Your task to perform on an android device: all mails in gmail Image 0: 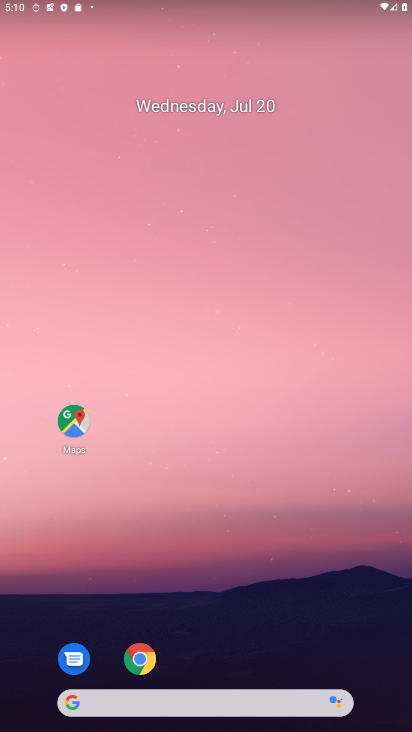
Step 0: drag from (222, 671) to (215, 157)
Your task to perform on an android device: all mails in gmail Image 1: 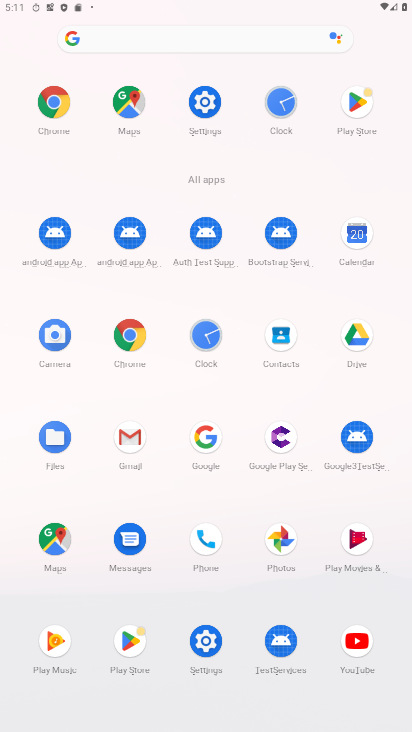
Step 1: click (131, 434)
Your task to perform on an android device: all mails in gmail Image 2: 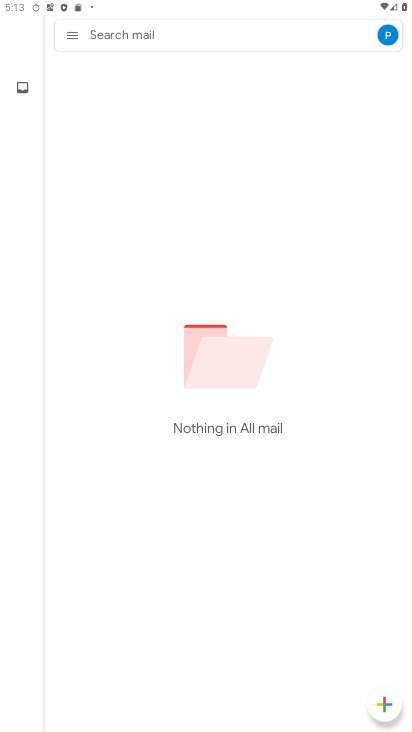
Step 2: task complete